Your task to perform on an android device: open app "Facebook" (install if not already installed) and go to login screen Image 0: 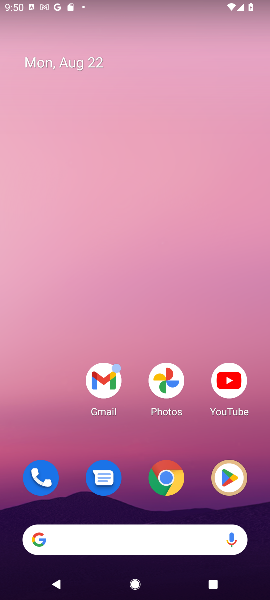
Step 0: click (225, 485)
Your task to perform on an android device: open app "Facebook" (install if not already installed) and go to login screen Image 1: 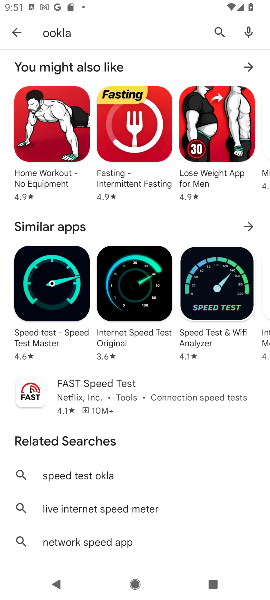
Step 1: click (224, 33)
Your task to perform on an android device: open app "Facebook" (install if not already installed) and go to login screen Image 2: 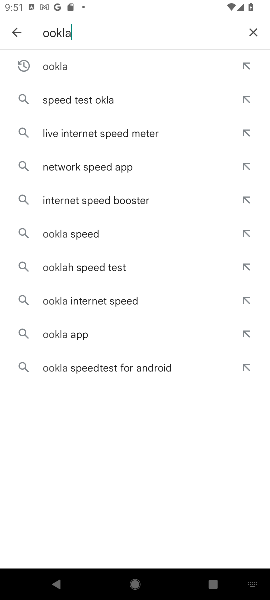
Step 2: click (244, 32)
Your task to perform on an android device: open app "Facebook" (install if not already installed) and go to login screen Image 3: 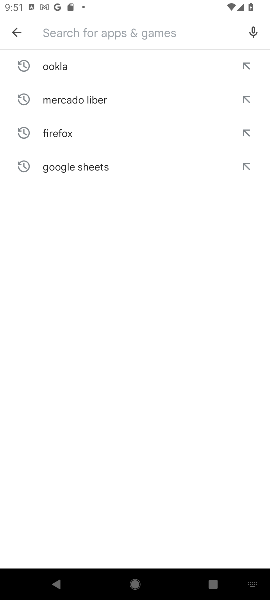
Step 3: type "facebook"
Your task to perform on an android device: open app "Facebook" (install if not already installed) and go to login screen Image 4: 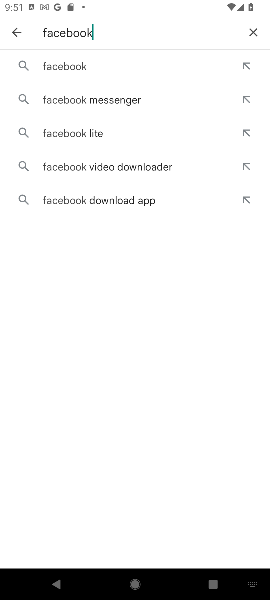
Step 4: click (90, 70)
Your task to perform on an android device: open app "Facebook" (install if not already installed) and go to login screen Image 5: 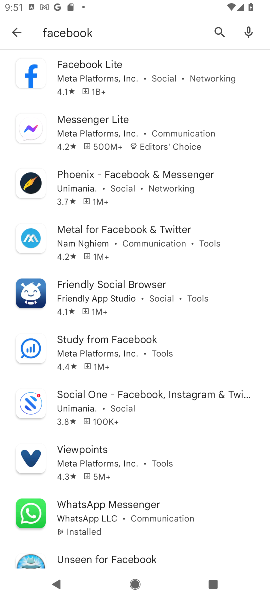
Step 5: click (152, 105)
Your task to perform on an android device: open app "Facebook" (install if not already installed) and go to login screen Image 6: 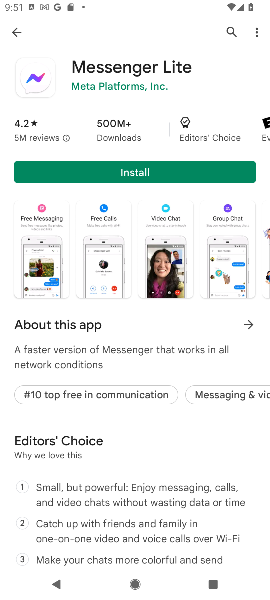
Step 6: click (18, 30)
Your task to perform on an android device: open app "Facebook" (install if not already installed) and go to login screen Image 7: 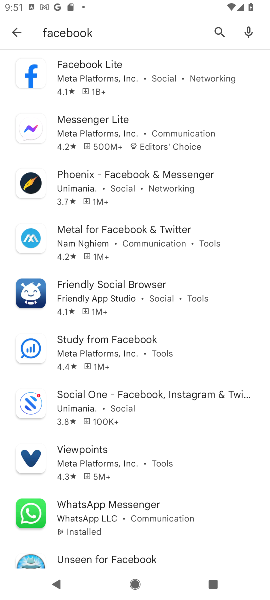
Step 7: click (176, 64)
Your task to perform on an android device: open app "Facebook" (install if not already installed) and go to login screen Image 8: 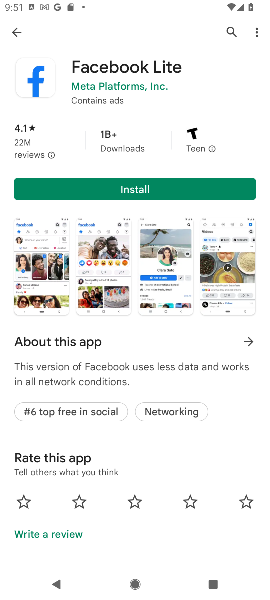
Step 8: click (163, 178)
Your task to perform on an android device: open app "Facebook" (install if not already installed) and go to login screen Image 9: 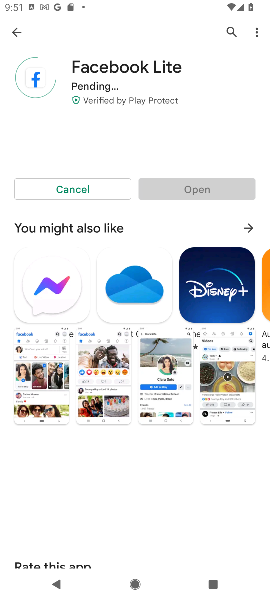
Step 9: task complete